Your task to perform on an android device: open device folders in google photos Image 0: 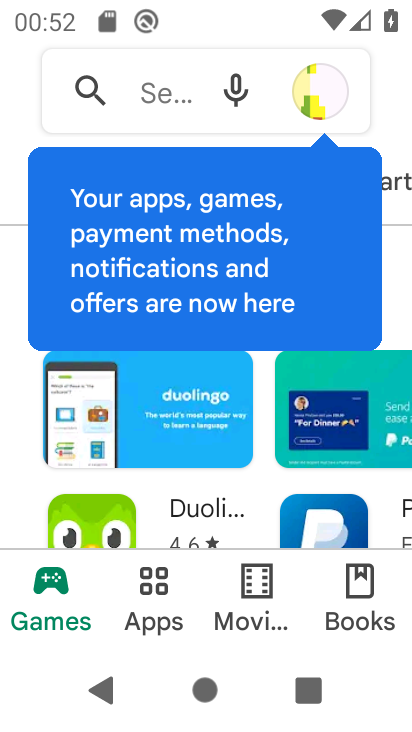
Step 0: press home button
Your task to perform on an android device: open device folders in google photos Image 1: 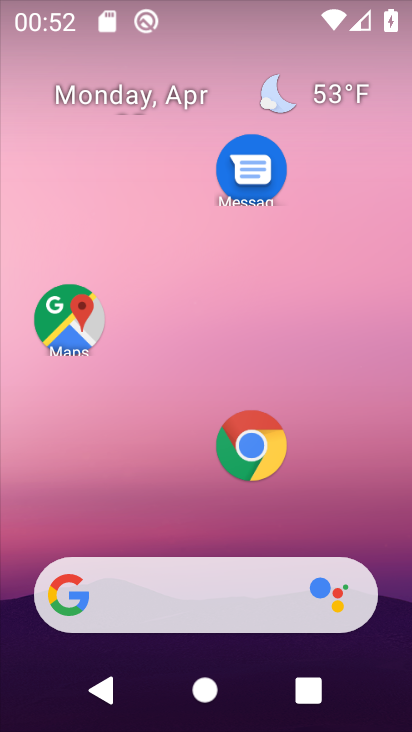
Step 1: drag from (140, 502) to (183, 90)
Your task to perform on an android device: open device folders in google photos Image 2: 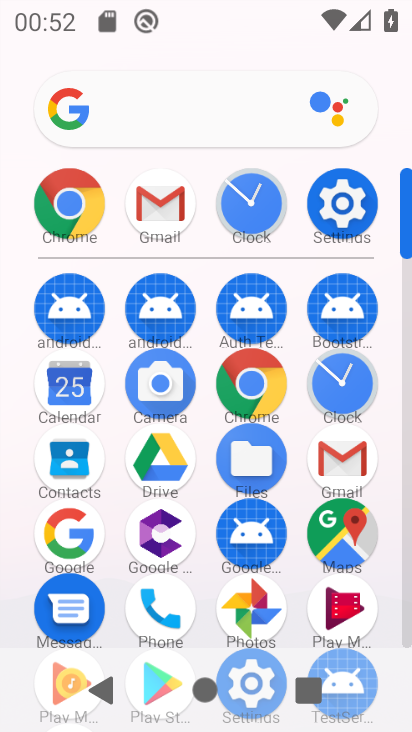
Step 2: click (255, 605)
Your task to perform on an android device: open device folders in google photos Image 3: 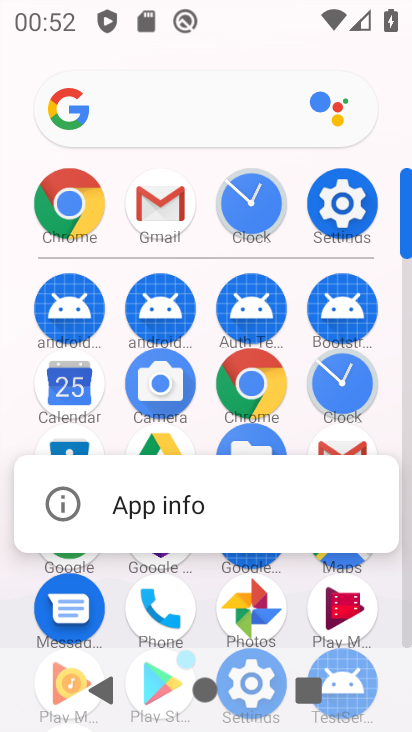
Step 3: click (245, 613)
Your task to perform on an android device: open device folders in google photos Image 4: 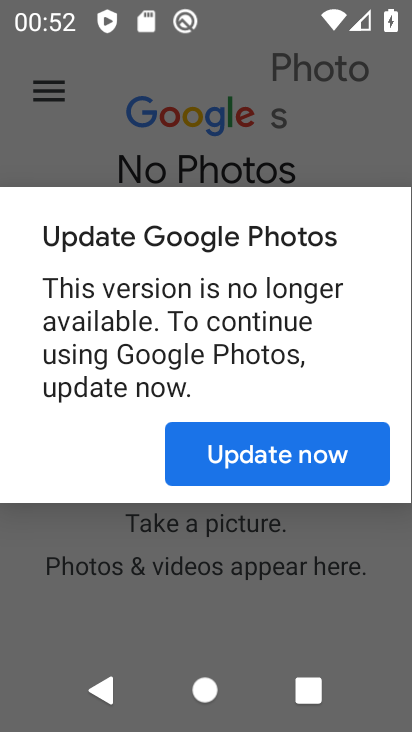
Step 4: click (303, 441)
Your task to perform on an android device: open device folders in google photos Image 5: 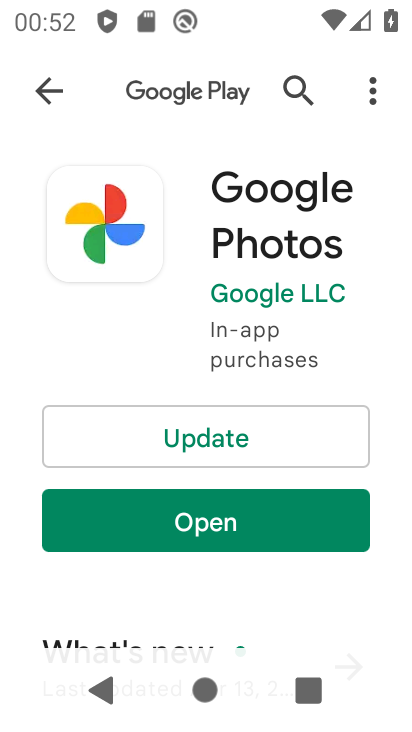
Step 5: click (228, 520)
Your task to perform on an android device: open device folders in google photos Image 6: 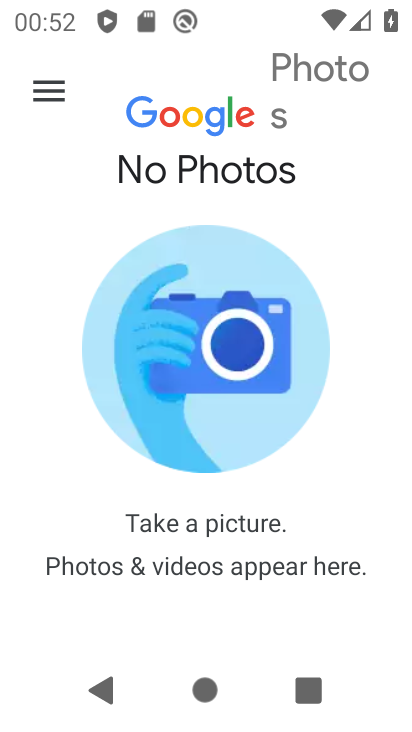
Step 6: click (57, 86)
Your task to perform on an android device: open device folders in google photos Image 7: 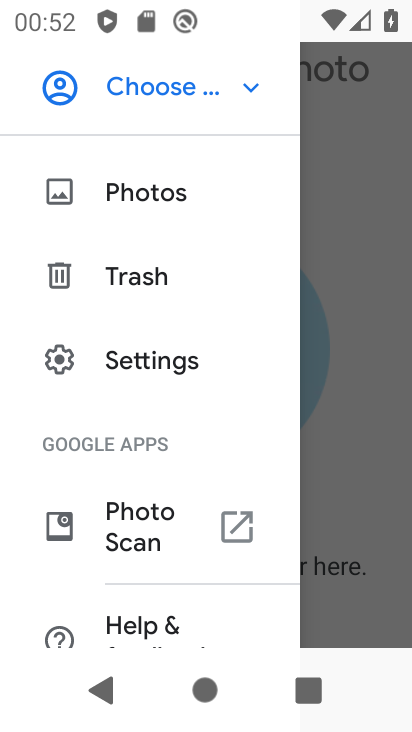
Step 7: drag from (163, 311) to (156, 577)
Your task to perform on an android device: open device folders in google photos Image 8: 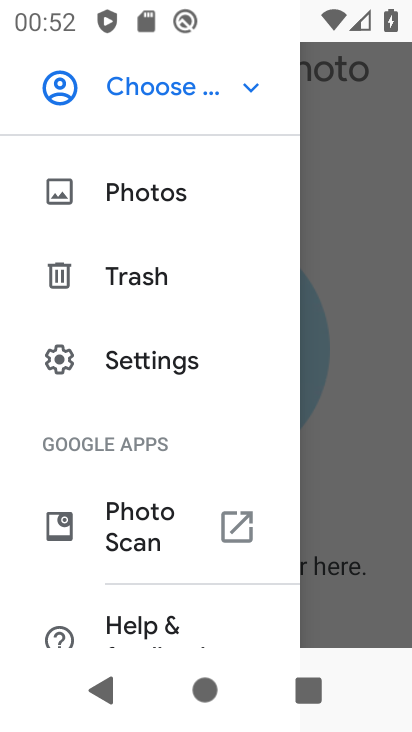
Step 8: drag from (143, 439) to (211, 94)
Your task to perform on an android device: open device folders in google photos Image 9: 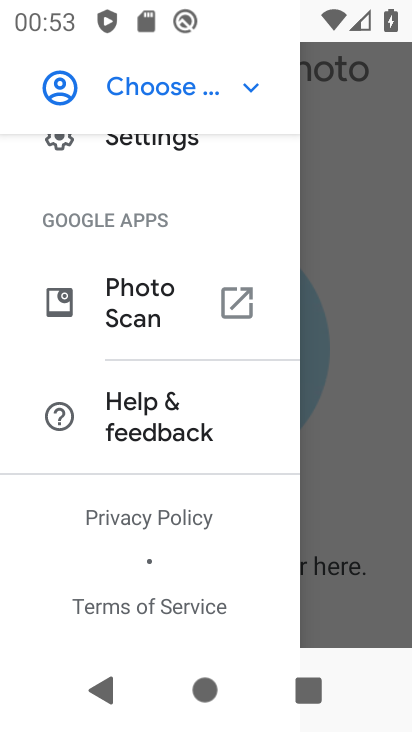
Step 9: click (323, 294)
Your task to perform on an android device: open device folders in google photos Image 10: 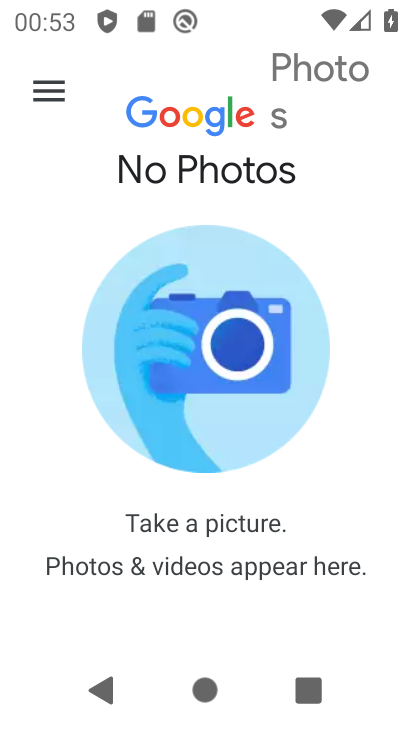
Step 10: task complete